Your task to perform on an android device: change text size in settings app Image 0: 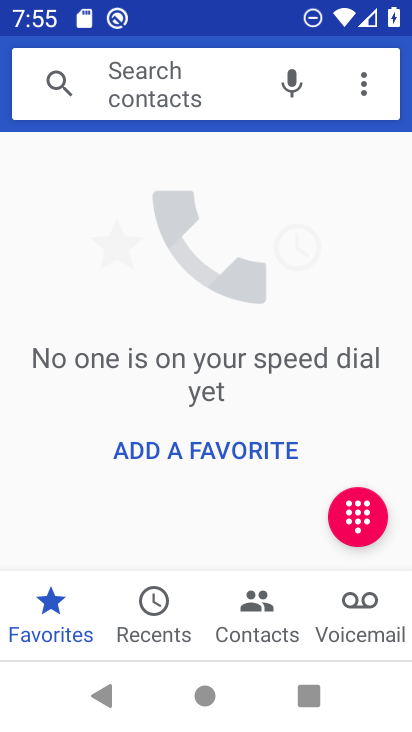
Step 0: press home button
Your task to perform on an android device: change text size in settings app Image 1: 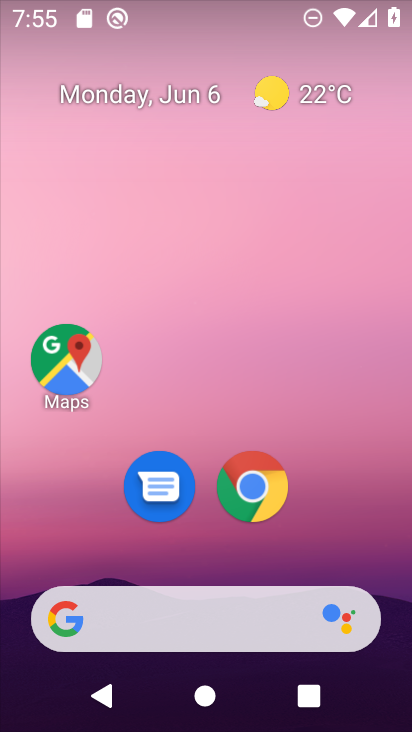
Step 1: drag from (395, 647) to (279, 37)
Your task to perform on an android device: change text size in settings app Image 2: 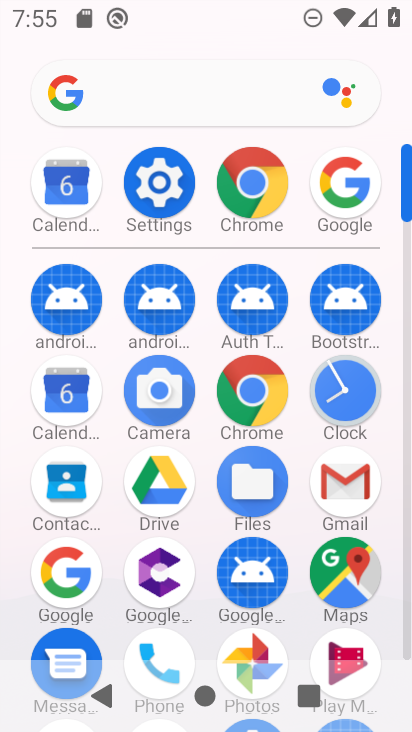
Step 2: click (149, 170)
Your task to perform on an android device: change text size in settings app Image 3: 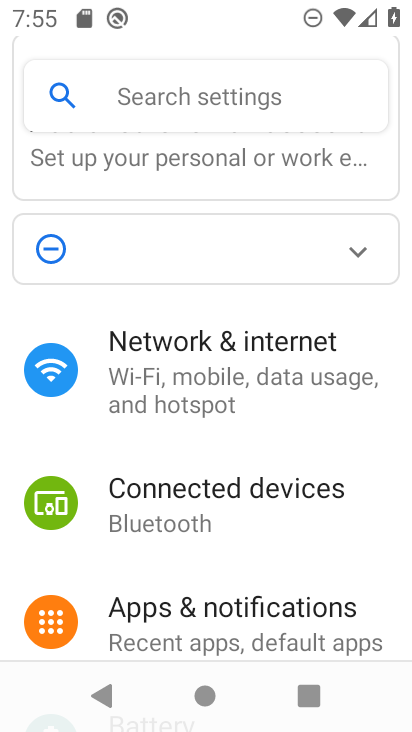
Step 3: drag from (214, 601) to (223, 125)
Your task to perform on an android device: change text size in settings app Image 4: 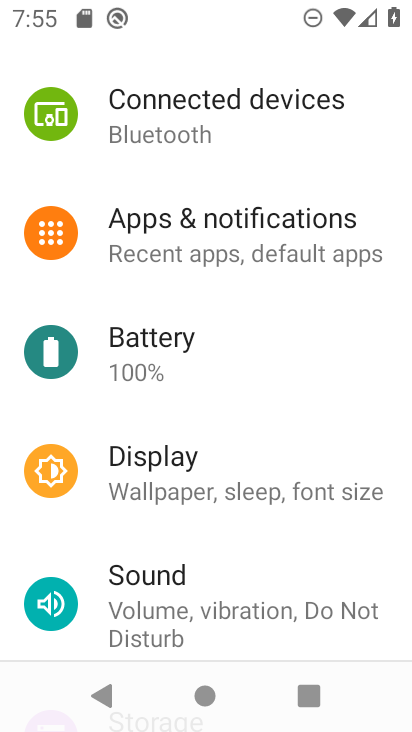
Step 4: click (221, 454)
Your task to perform on an android device: change text size in settings app Image 5: 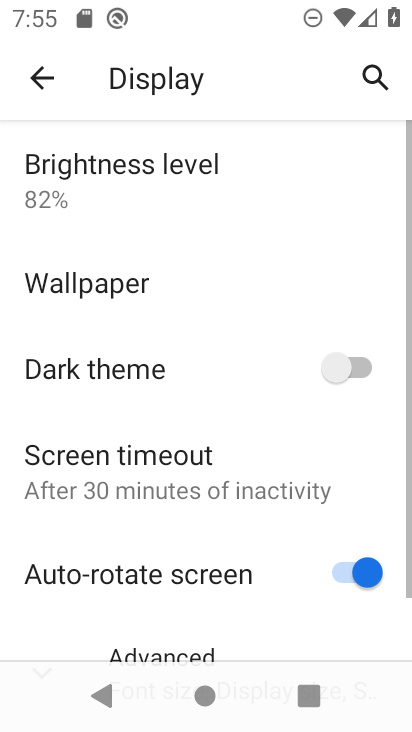
Step 5: drag from (187, 621) to (241, 128)
Your task to perform on an android device: change text size in settings app Image 6: 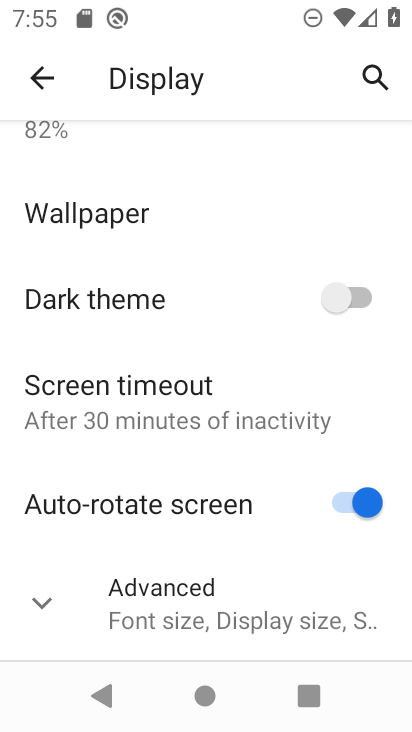
Step 6: click (191, 614)
Your task to perform on an android device: change text size in settings app Image 7: 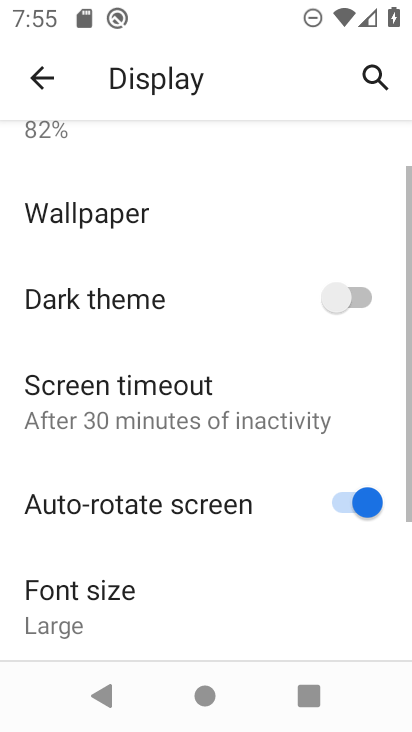
Step 7: drag from (202, 620) to (241, 331)
Your task to perform on an android device: change text size in settings app Image 8: 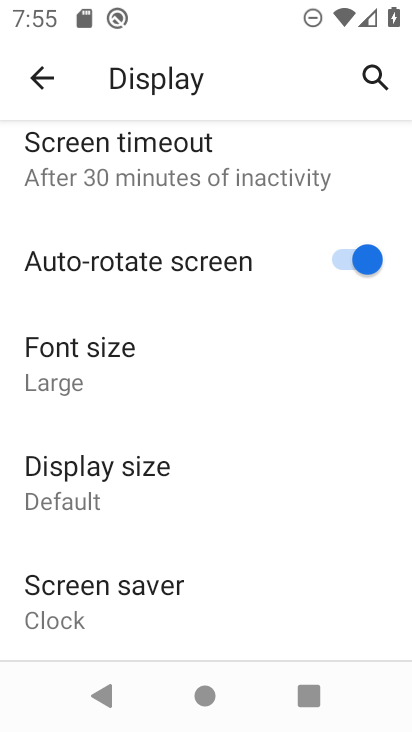
Step 8: click (136, 368)
Your task to perform on an android device: change text size in settings app Image 9: 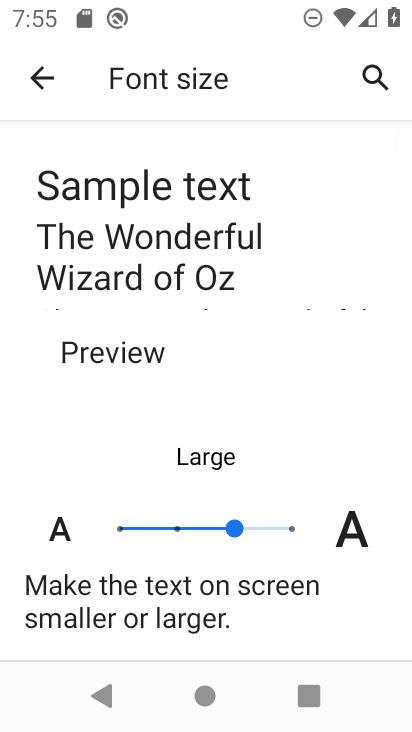
Step 9: click (176, 520)
Your task to perform on an android device: change text size in settings app Image 10: 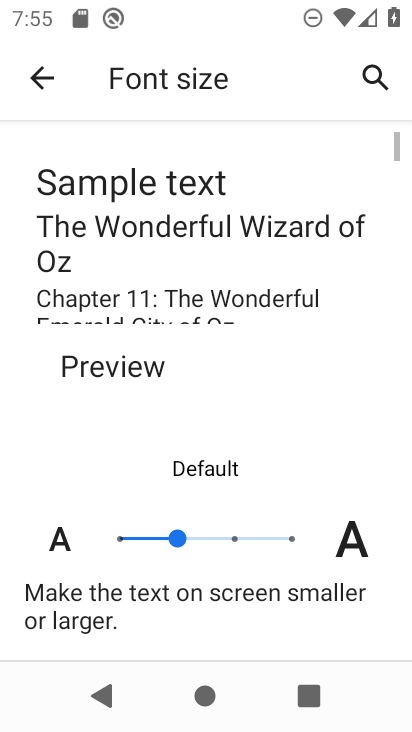
Step 10: task complete